Your task to perform on an android device: choose inbox layout in the gmail app Image 0: 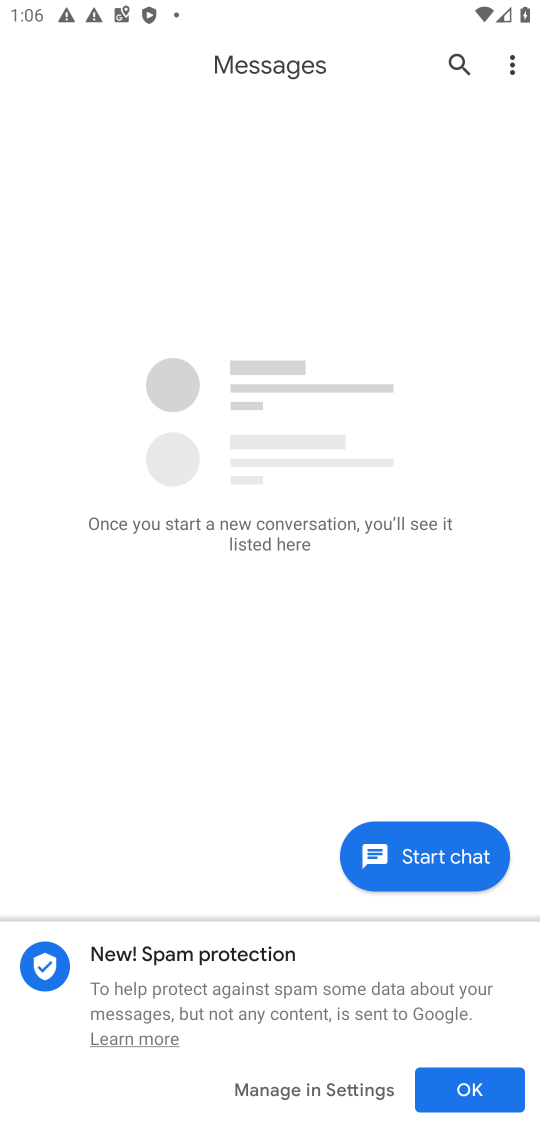
Step 0: press home button
Your task to perform on an android device: choose inbox layout in the gmail app Image 1: 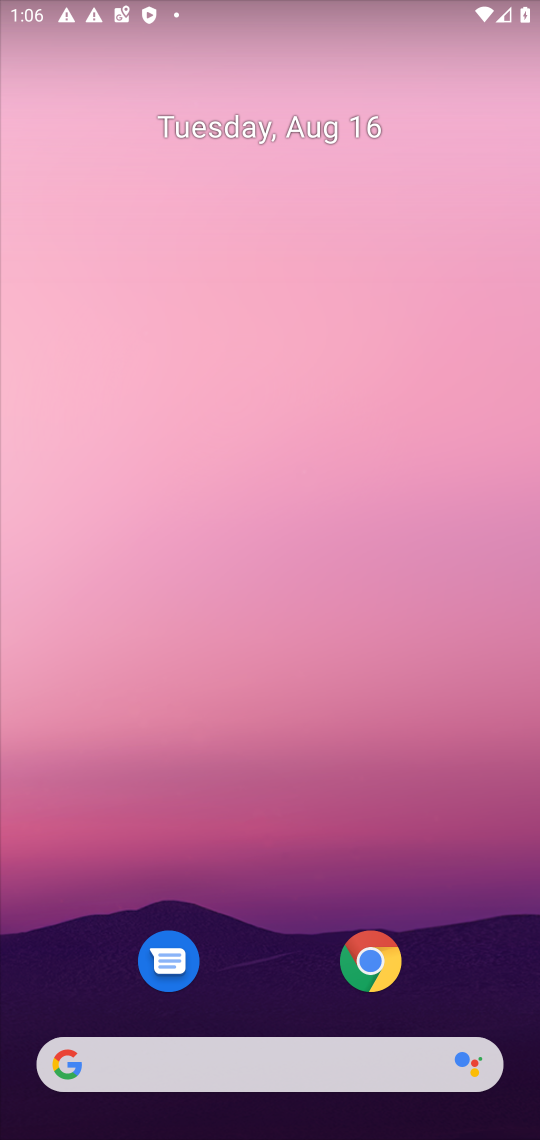
Step 1: drag from (458, 911) to (266, 7)
Your task to perform on an android device: choose inbox layout in the gmail app Image 2: 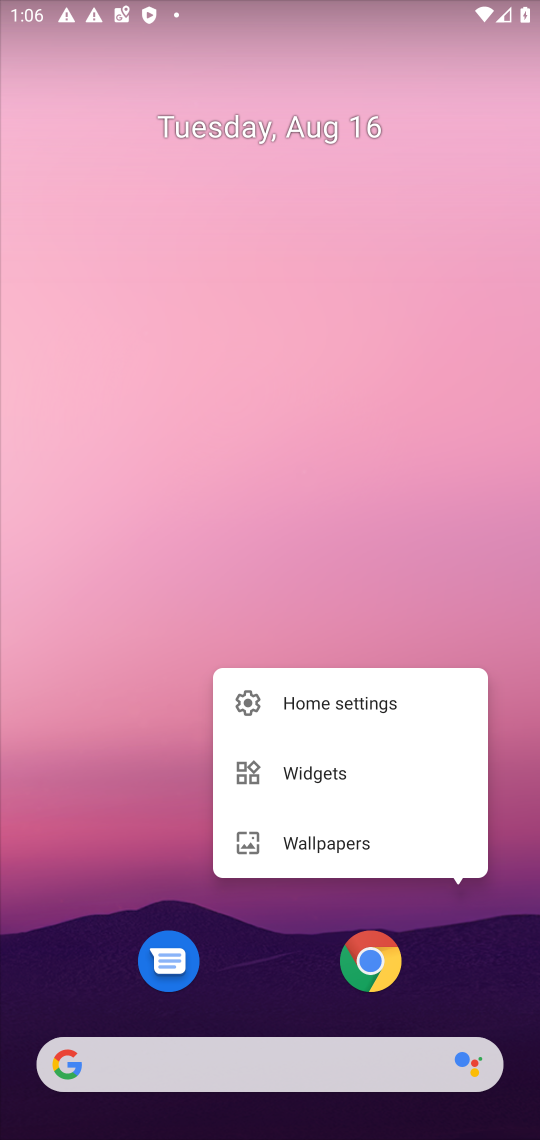
Step 2: click (454, 561)
Your task to perform on an android device: choose inbox layout in the gmail app Image 3: 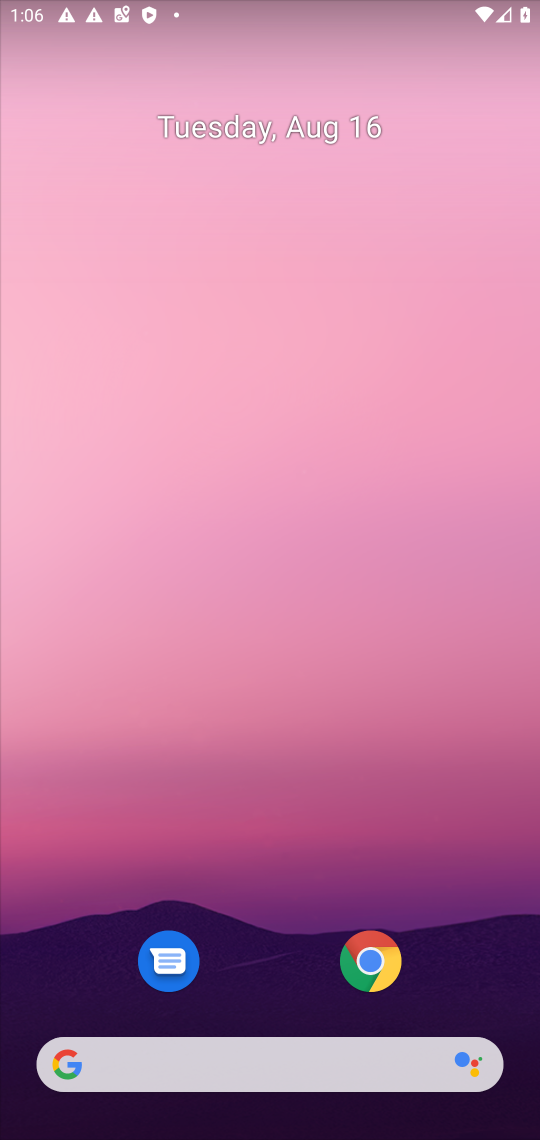
Step 3: drag from (479, 995) to (204, 0)
Your task to perform on an android device: choose inbox layout in the gmail app Image 4: 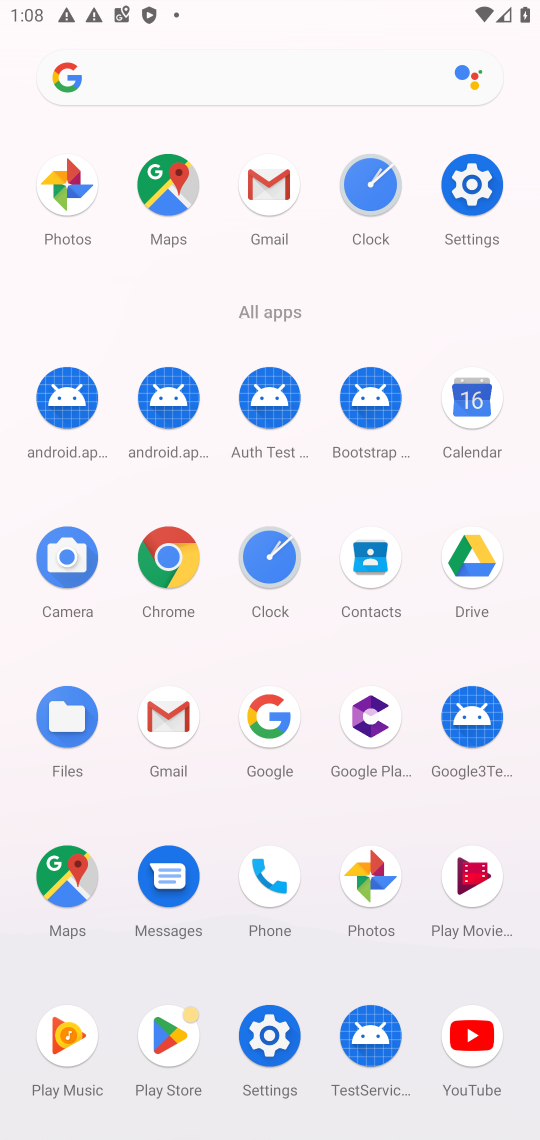
Step 4: click (169, 734)
Your task to perform on an android device: choose inbox layout in the gmail app Image 5: 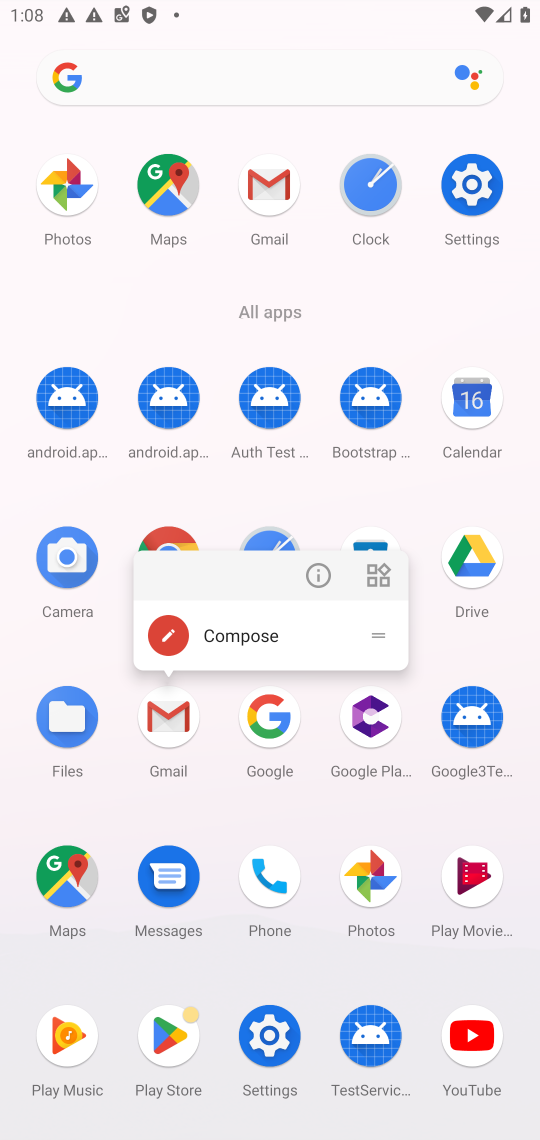
Step 5: click (169, 734)
Your task to perform on an android device: choose inbox layout in the gmail app Image 6: 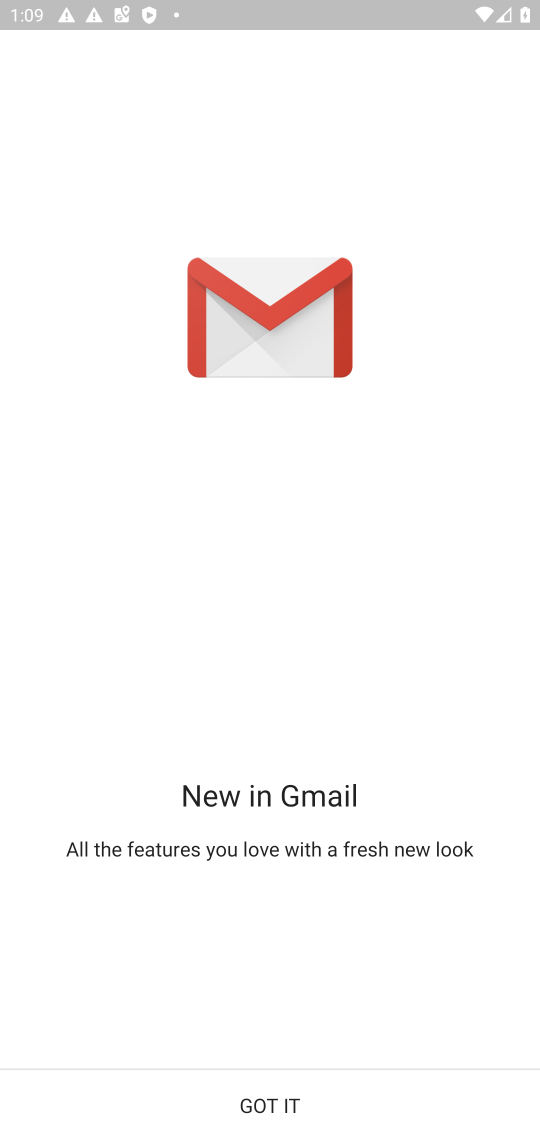
Step 6: click (322, 1092)
Your task to perform on an android device: choose inbox layout in the gmail app Image 7: 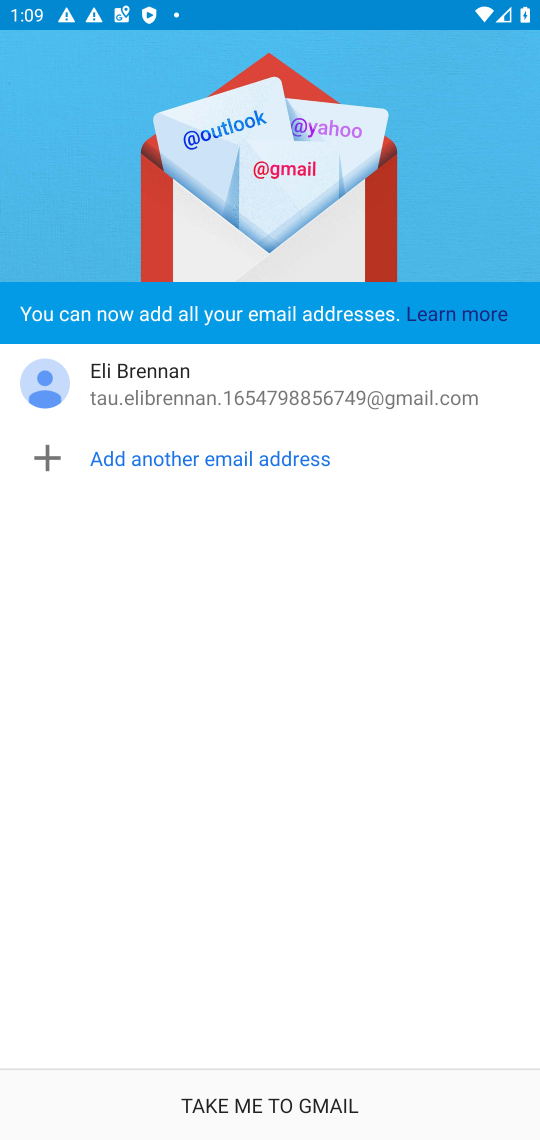
Step 7: click (298, 1098)
Your task to perform on an android device: choose inbox layout in the gmail app Image 8: 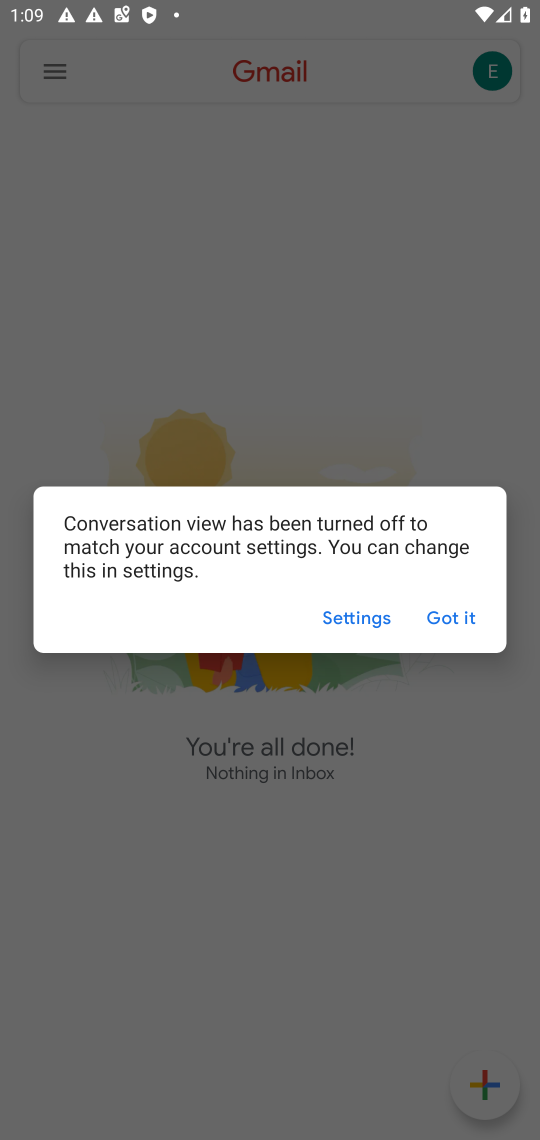
Step 8: click (464, 609)
Your task to perform on an android device: choose inbox layout in the gmail app Image 9: 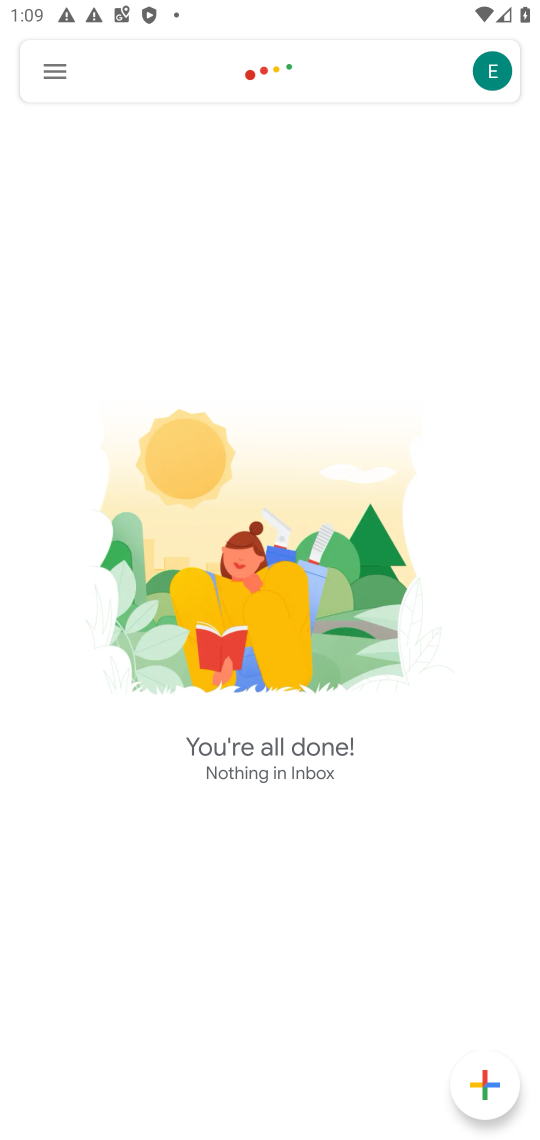
Step 9: task complete